Your task to perform on an android device: Go to ESPN.com Image 0: 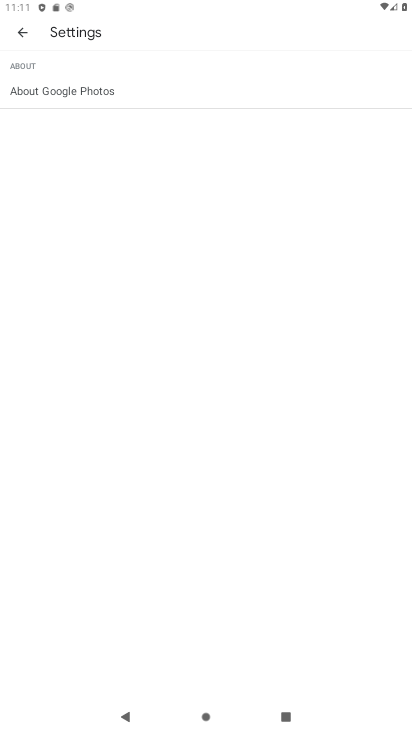
Step 0: press home button
Your task to perform on an android device: Go to ESPN.com Image 1: 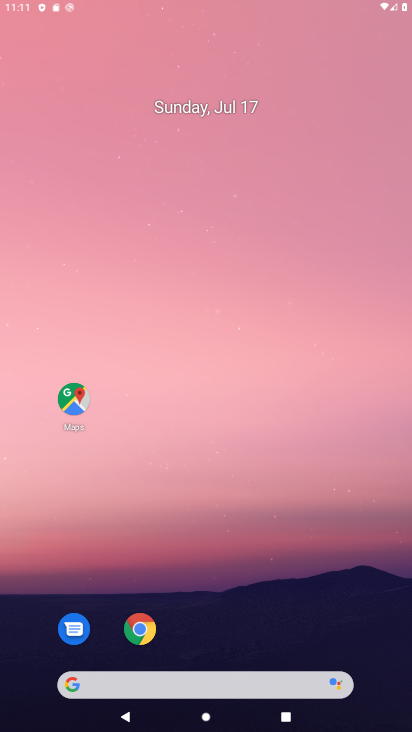
Step 1: drag from (244, 505) to (262, 130)
Your task to perform on an android device: Go to ESPN.com Image 2: 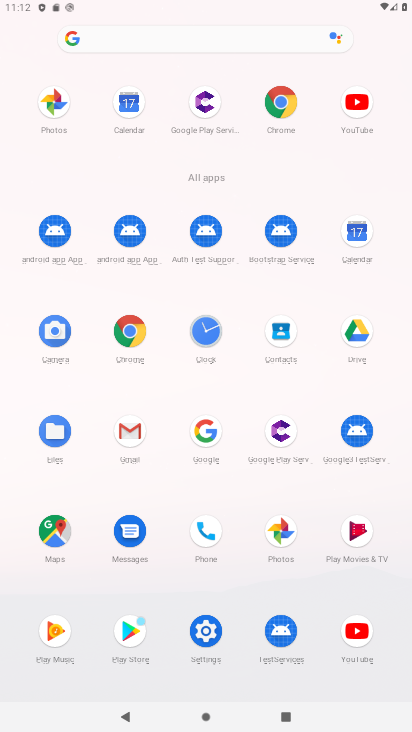
Step 2: click (281, 80)
Your task to perform on an android device: Go to ESPN.com Image 3: 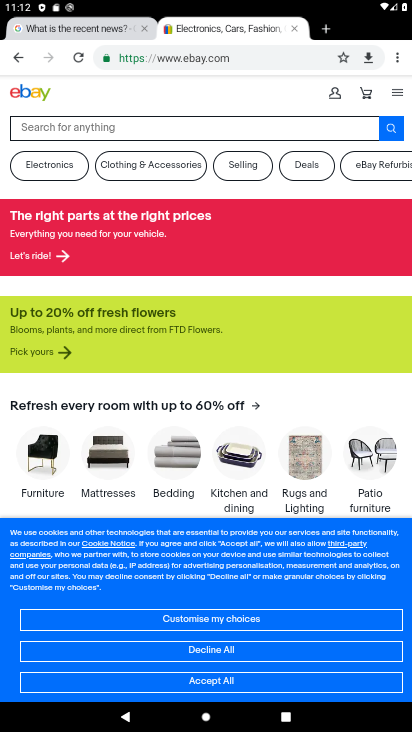
Step 3: drag from (397, 46) to (297, 87)
Your task to perform on an android device: Go to ESPN.com Image 4: 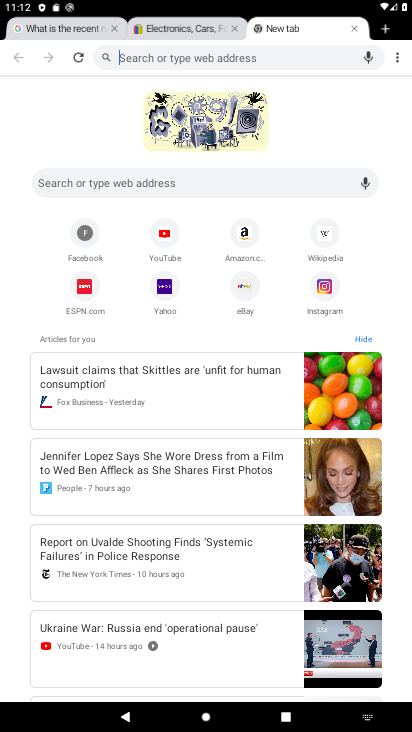
Step 4: click (96, 281)
Your task to perform on an android device: Go to ESPN.com Image 5: 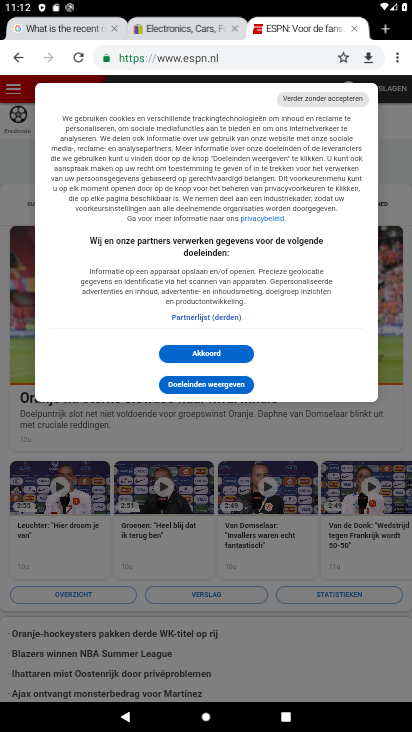
Step 5: task complete